Your task to perform on an android device: Clear all items from cart on newegg.com. Add "panasonic triple a" to the cart on newegg.com Image 0: 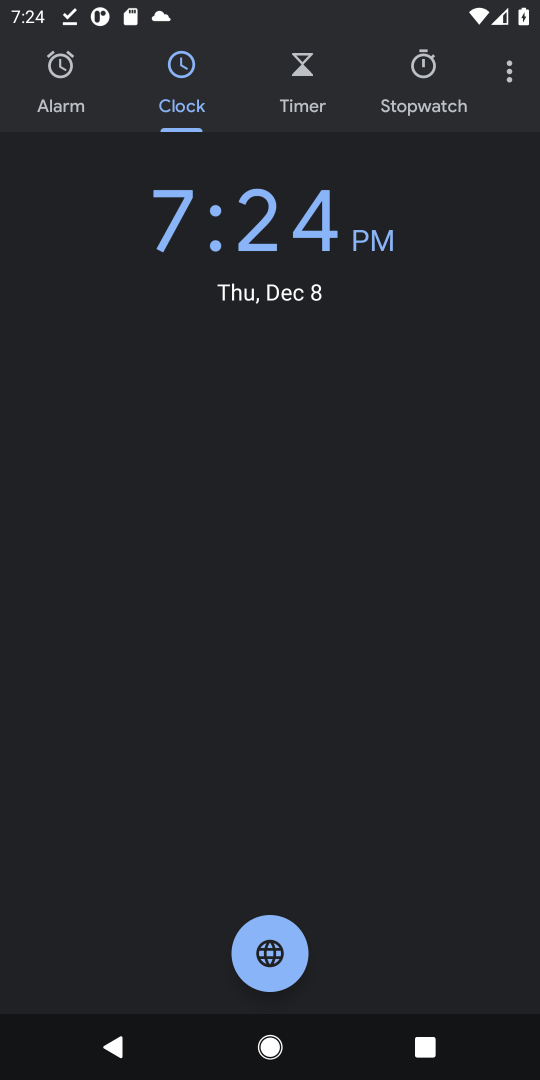
Step 0: press home button
Your task to perform on an android device: Clear all items from cart on newegg.com. Add "panasonic triple a" to the cart on newegg.com Image 1: 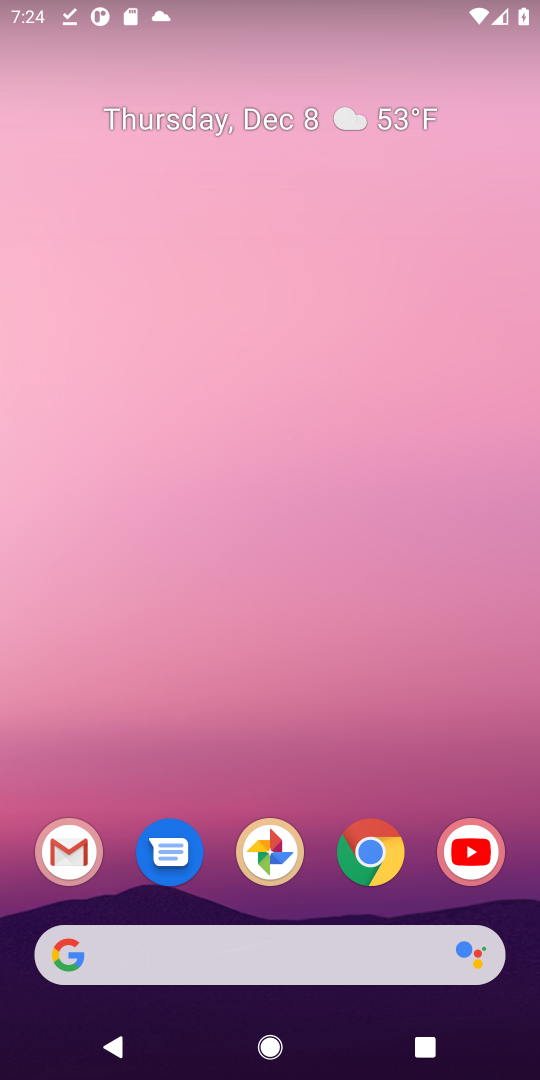
Step 1: click (245, 942)
Your task to perform on an android device: Clear all items from cart on newegg.com. Add "panasonic triple a" to the cart on newegg.com Image 2: 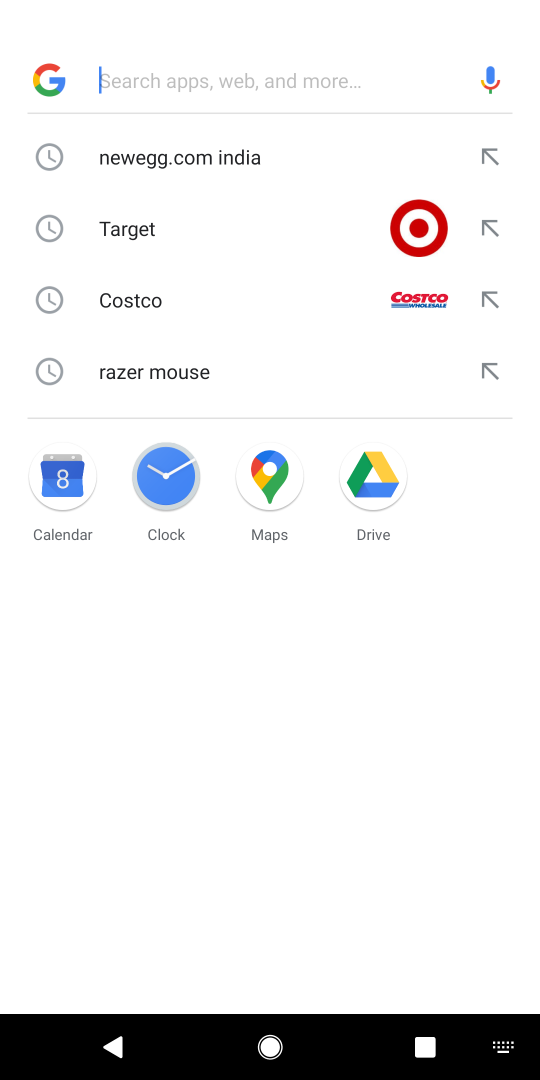
Step 2: type "newegg.com"
Your task to perform on an android device: Clear all items from cart on newegg.com. Add "panasonic triple a" to the cart on newegg.com Image 3: 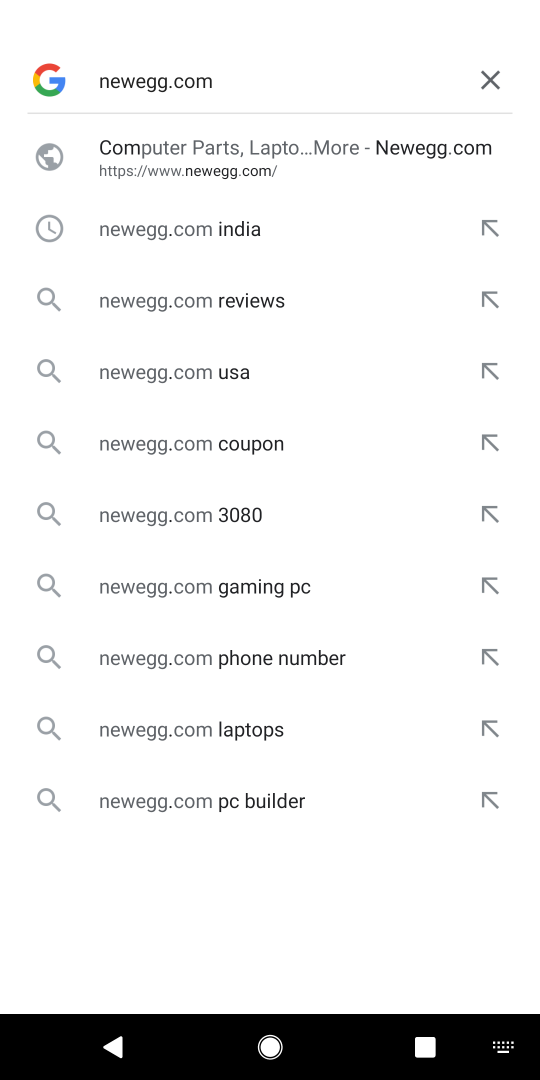
Step 3: click (281, 150)
Your task to perform on an android device: Clear all items from cart on newegg.com. Add "panasonic triple a" to the cart on newegg.com Image 4: 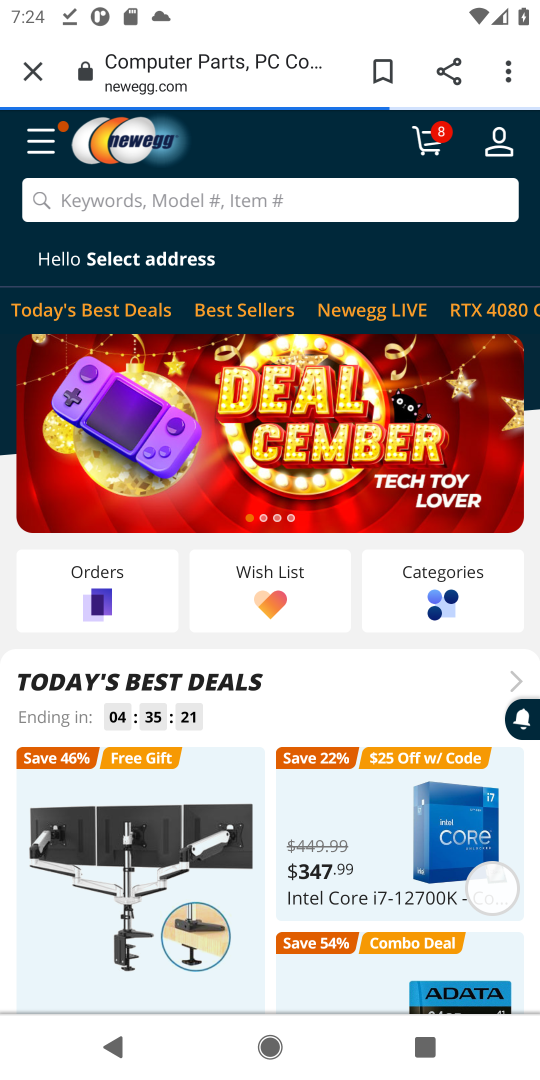
Step 4: click (286, 192)
Your task to perform on an android device: Clear all items from cart on newegg.com. Add "panasonic triple a" to the cart on newegg.com Image 5: 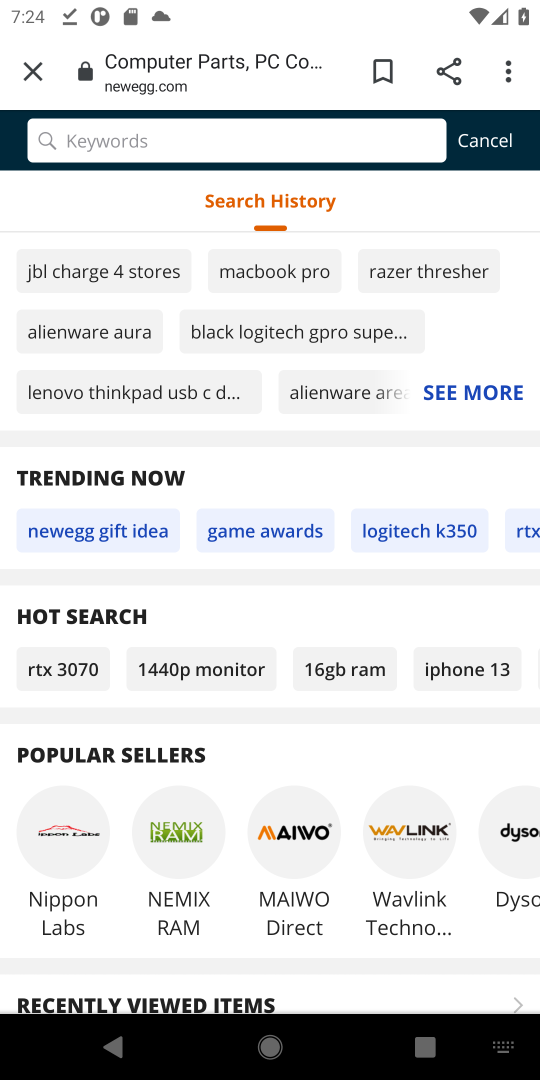
Step 5: type "panasonic triple a"
Your task to perform on an android device: Clear all items from cart on newegg.com. Add "panasonic triple a" to the cart on newegg.com Image 6: 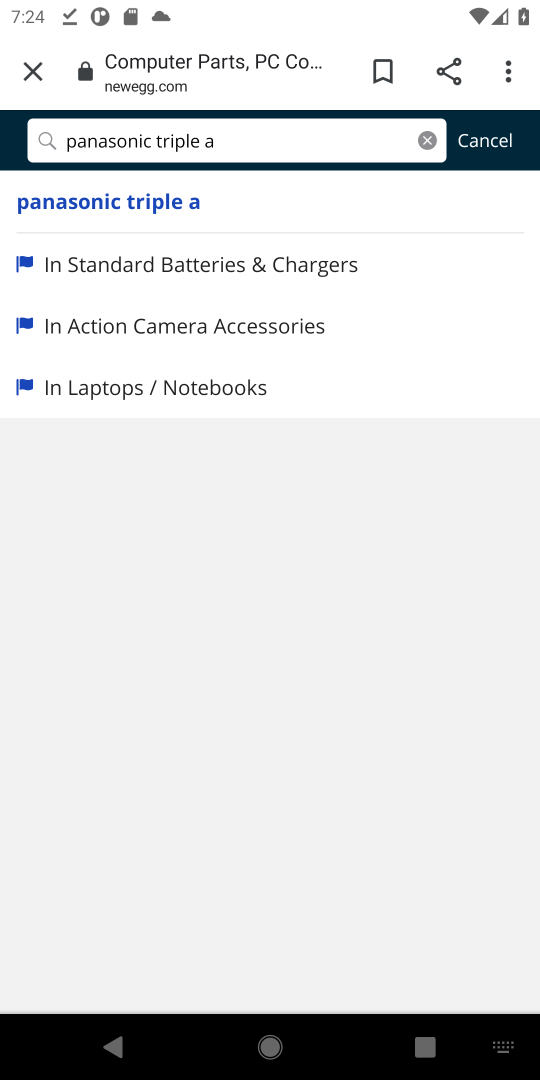
Step 6: click (157, 222)
Your task to perform on an android device: Clear all items from cart on newegg.com. Add "panasonic triple a" to the cart on newegg.com Image 7: 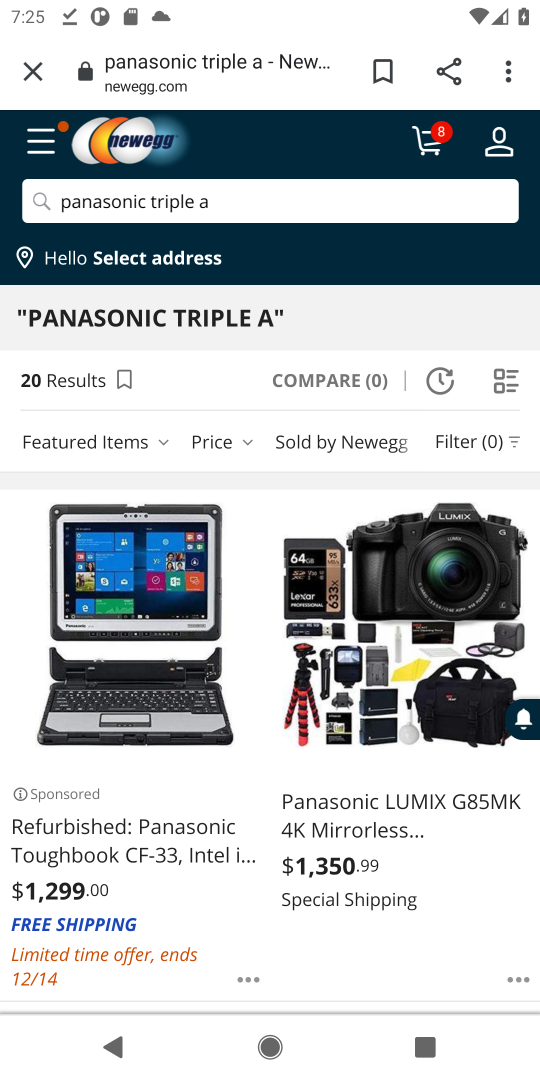
Step 7: click (181, 812)
Your task to perform on an android device: Clear all items from cart on newegg.com. Add "panasonic triple a" to the cart on newegg.com Image 8: 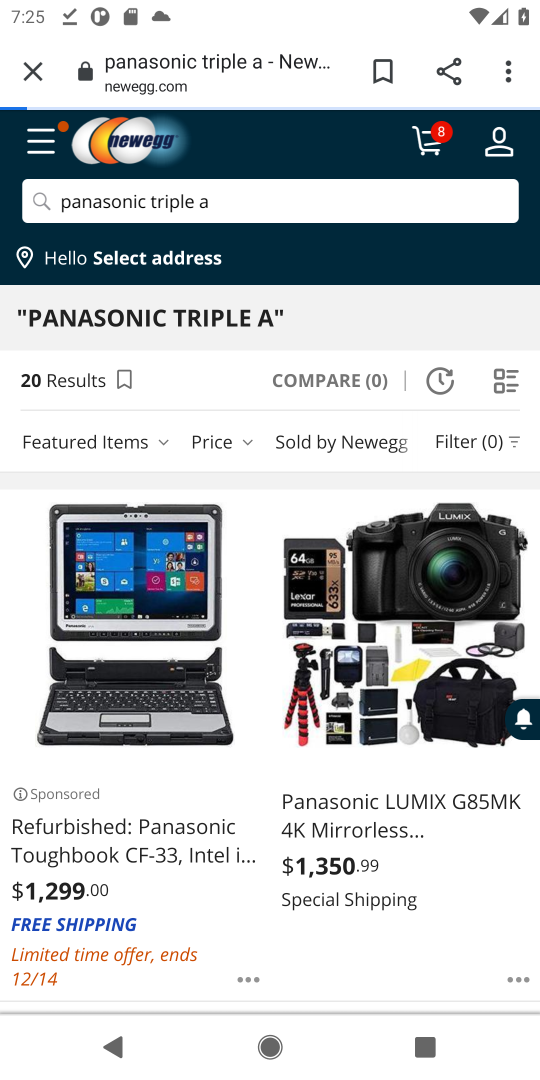
Step 8: click (181, 812)
Your task to perform on an android device: Clear all items from cart on newegg.com. Add "panasonic triple a" to the cart on newegg.com Image 9: 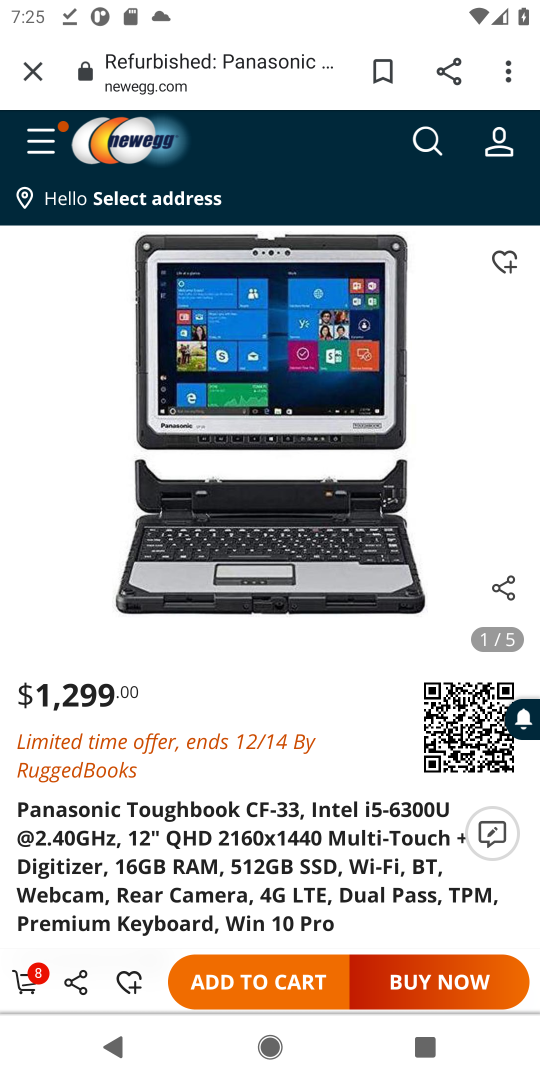
Step 9: click (235, 993)
Your task to perform on an android device: Clear all items from cart on newegg.com. Add "panasonic triple a" to the cart on newegg.com Image 10: 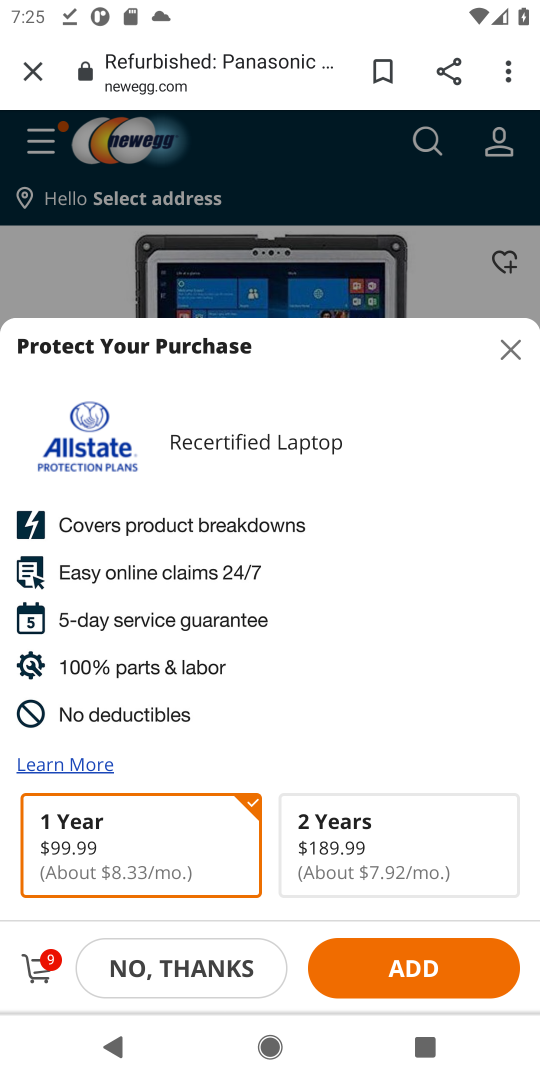
Step 10: task complete